Your task to perform on an android device: Add bose soundlink to the cart on ebay Image 0: 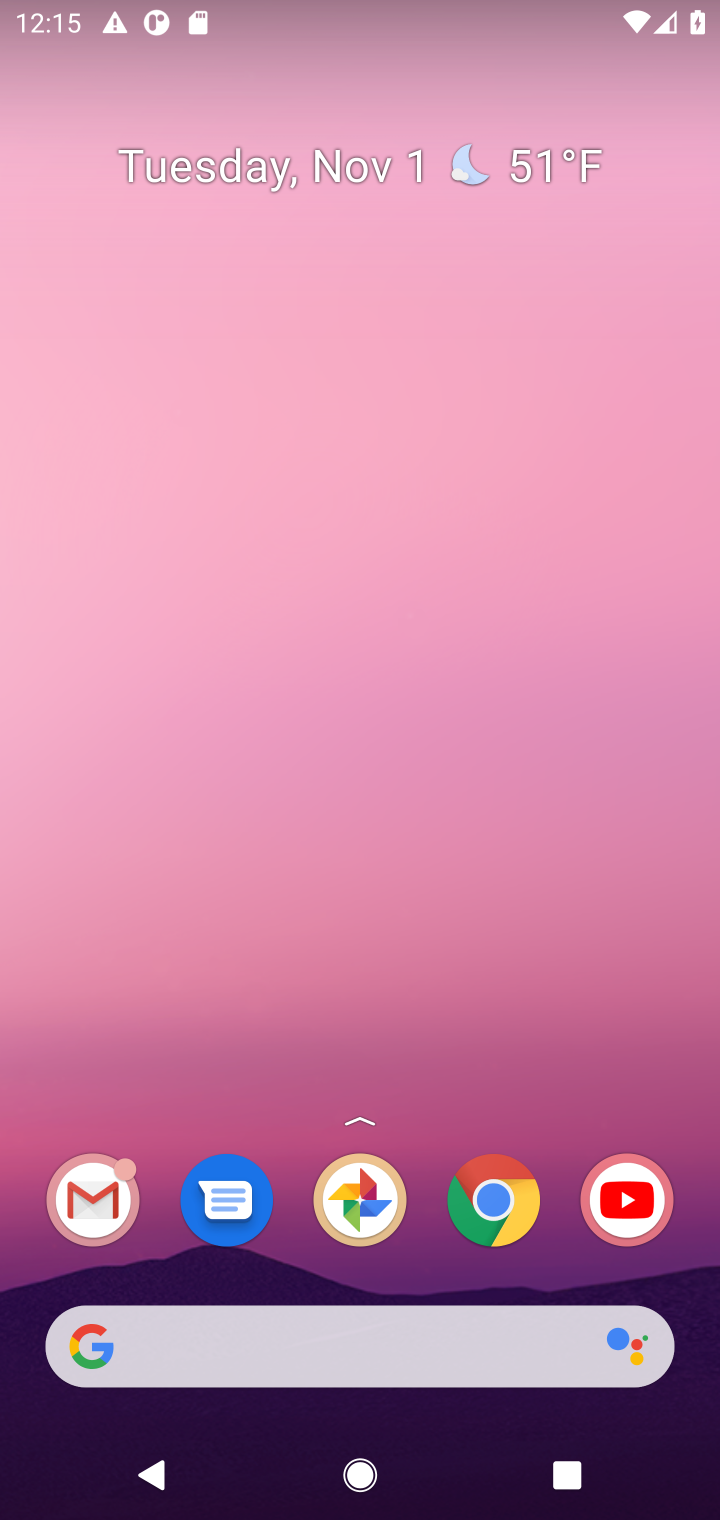
Step 0: click (492, 1203)
Your task to perform on an android device: Add bose soundlink to the cart on ebay Image 1: 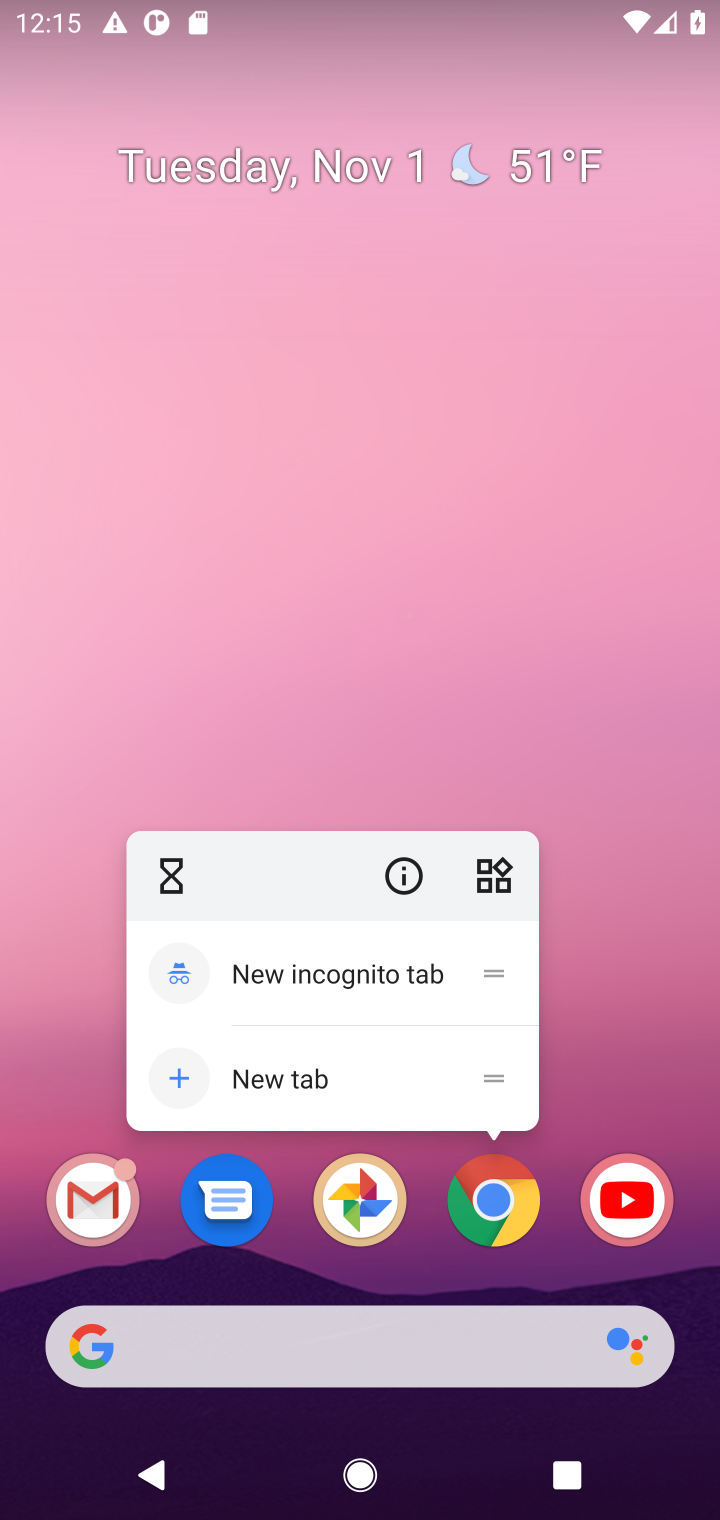
Step 1: click (492, 1203)
Your task to perform on an android device: Add bose soundlink to the cart on ebay Image 2: 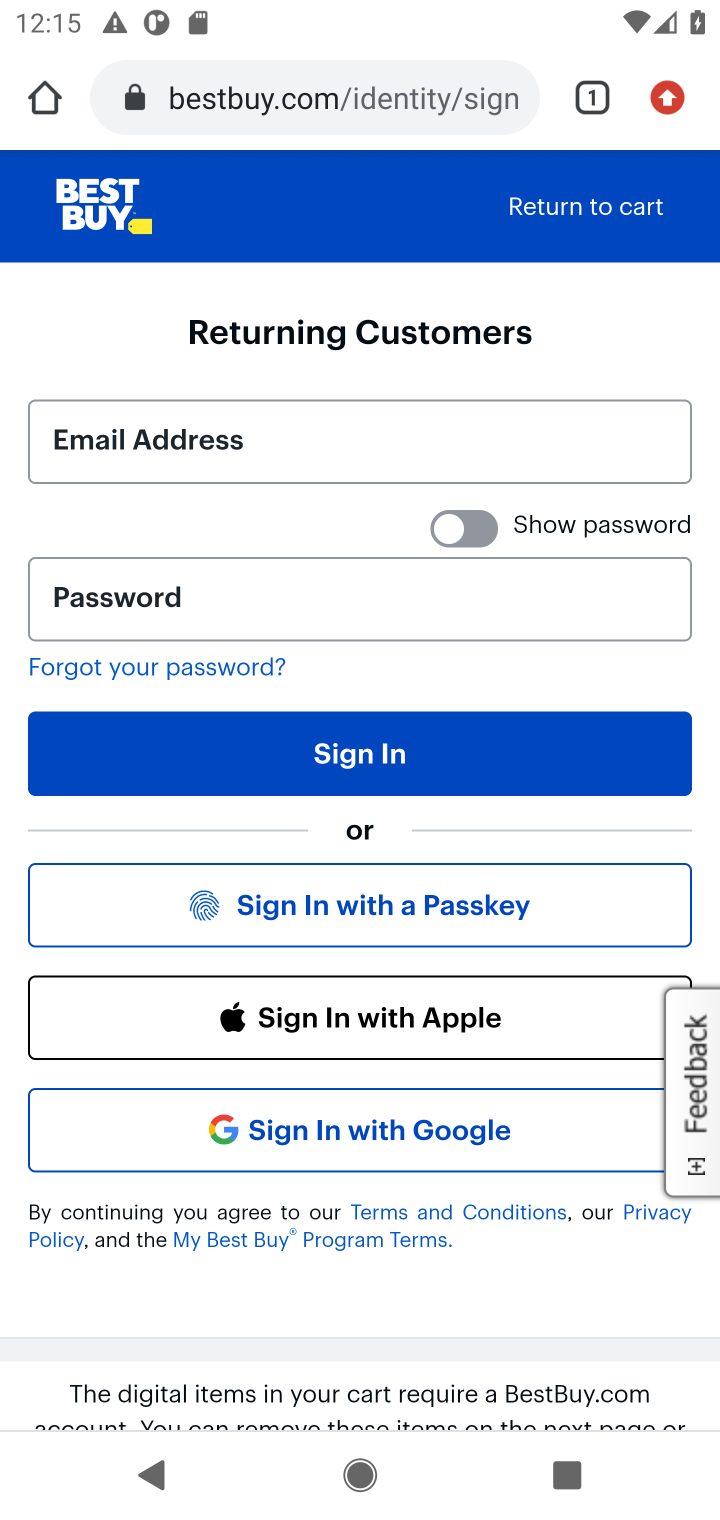
Step 2: click (332, 99)
Your task to perform on an android device: Add bose soundlink to the cart on ebay Image 3: 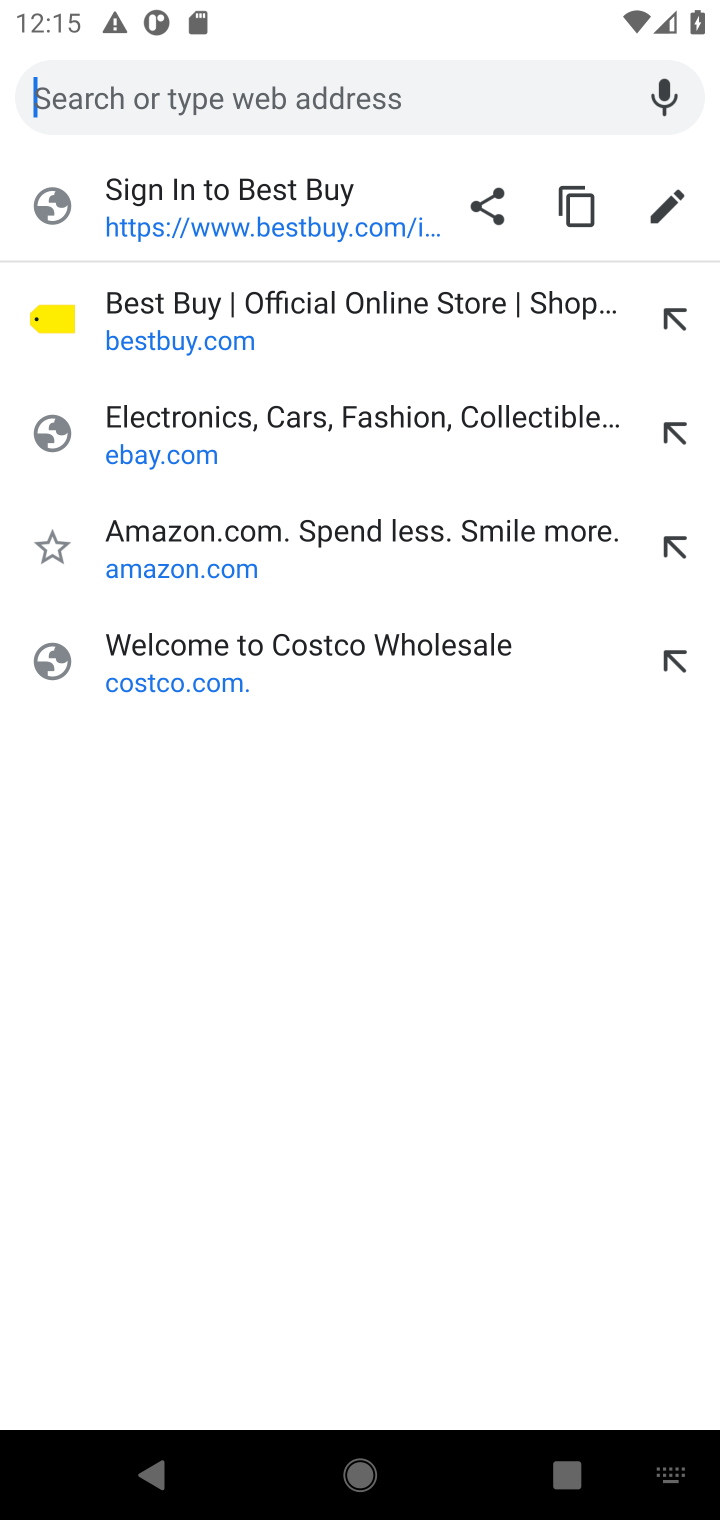
Step 3: click (155, 457)
Your task to perform on an android device: Add bose soundlink to the cart on ebay Image 4: 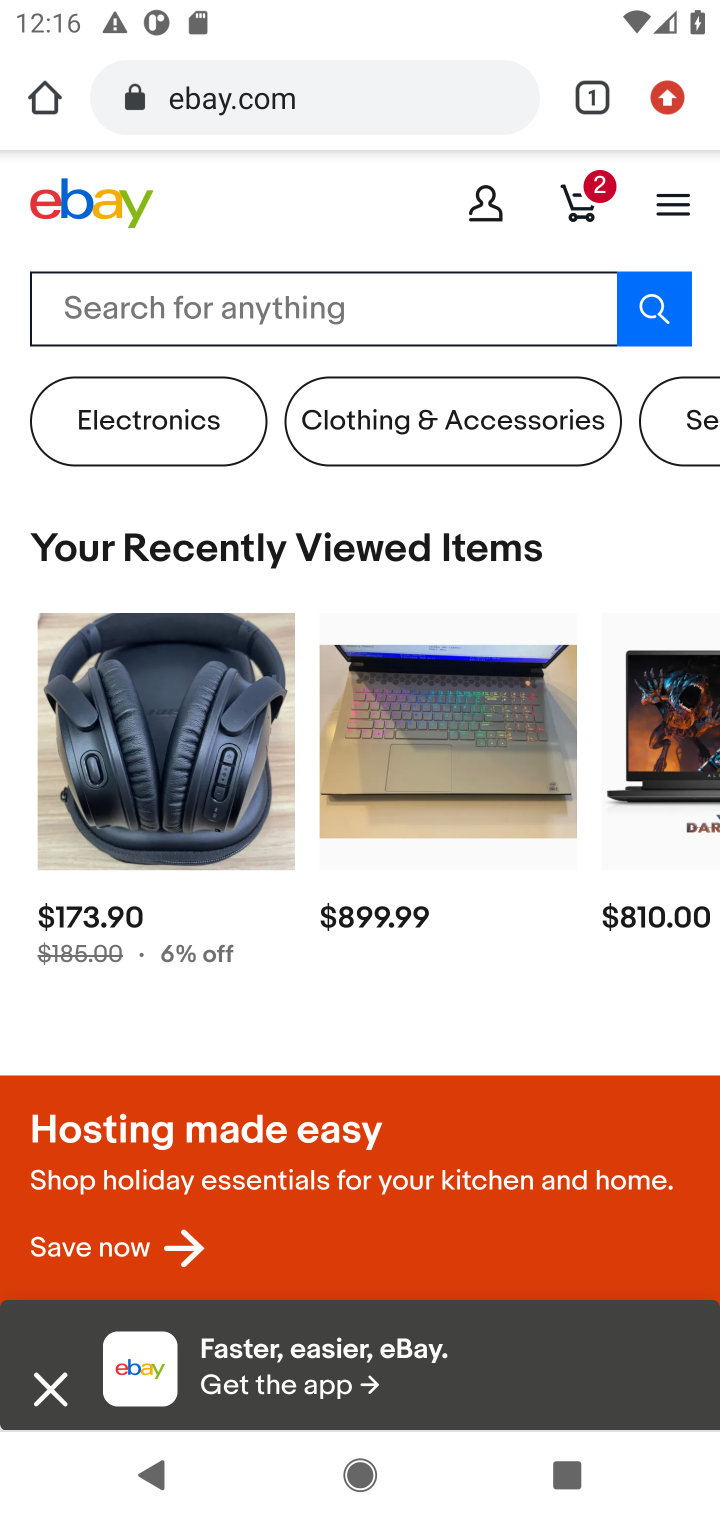
Step 4: click (249, 297)
Your task to perform on an android device: Add bose soundlink to the cart on ebay Image 5: 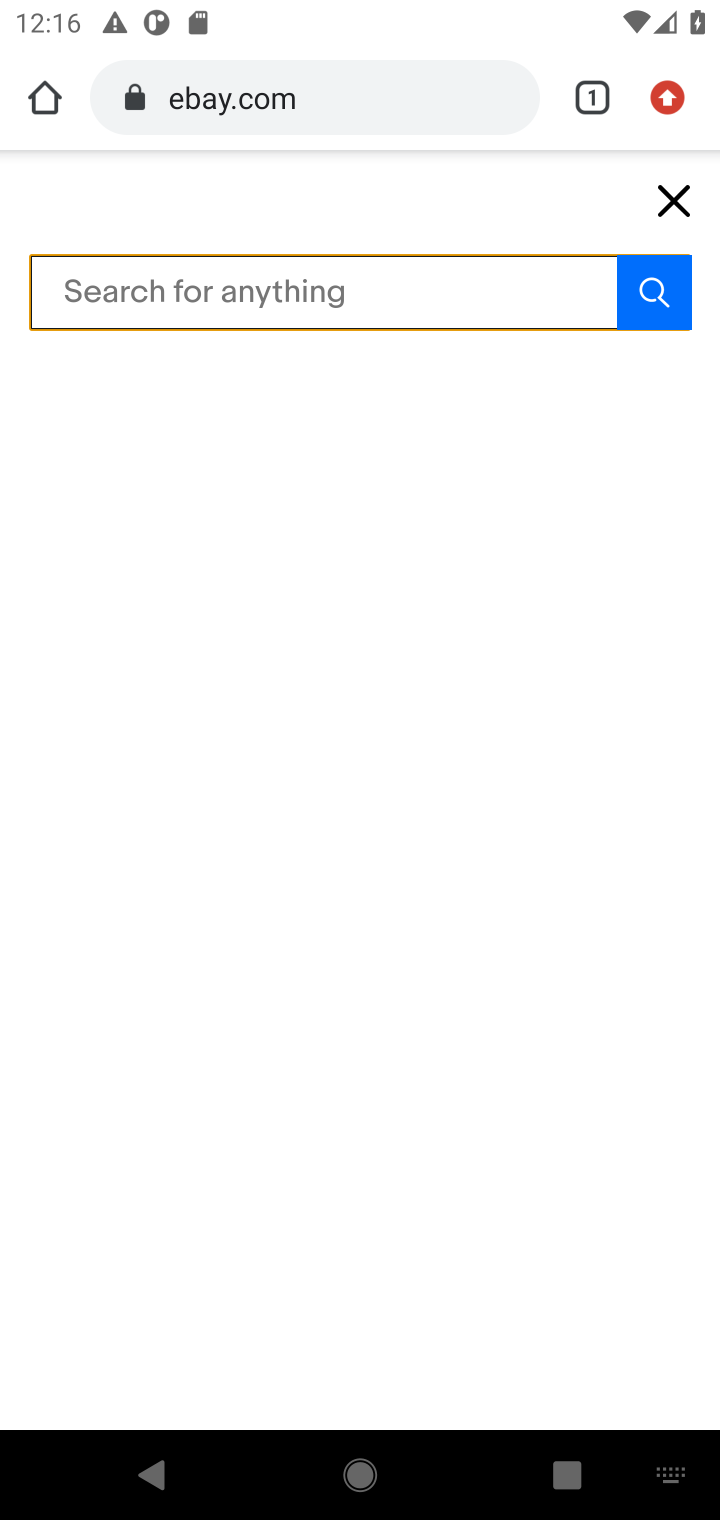
Step 5: type "bose soundlink "
Your task to perform on an android device: Add bose soundlink to the cart on ebay Image 6: 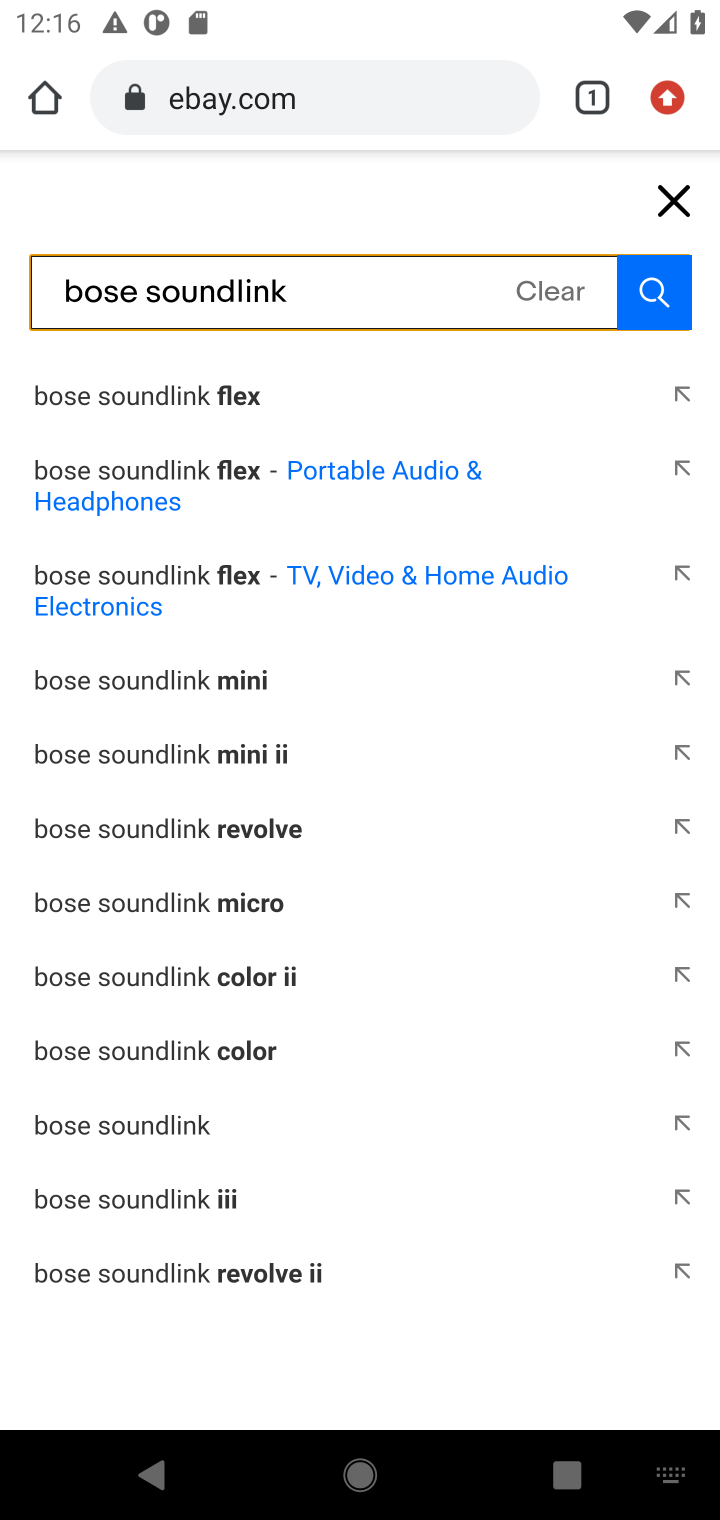
Step 6: click (120, 401)
Your task to perform on an android device: Add bose soundlink to the cart on ebay Image 7: 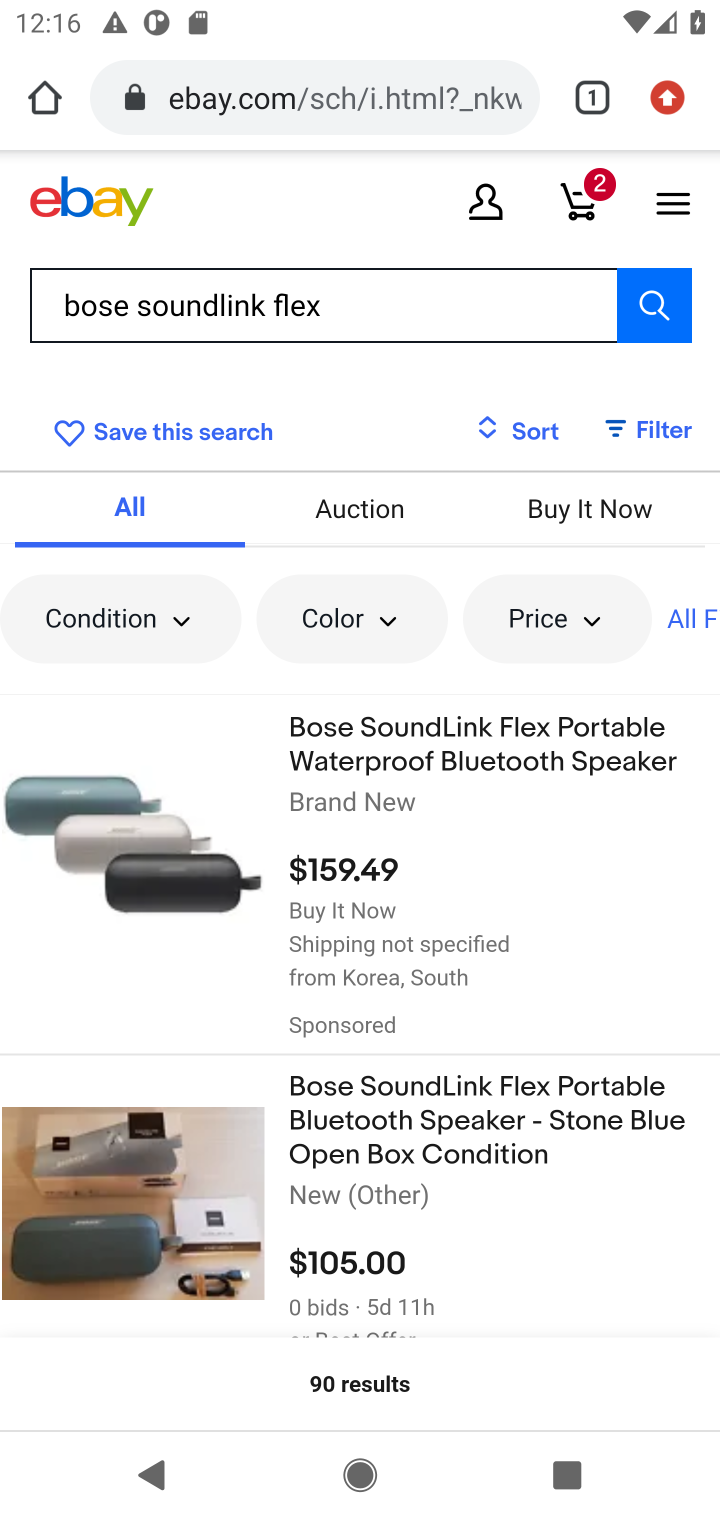
Step 7: click (223, 848)
Your task to perform on an android device: Add bose soundlink to the cart on ebay Image 8: 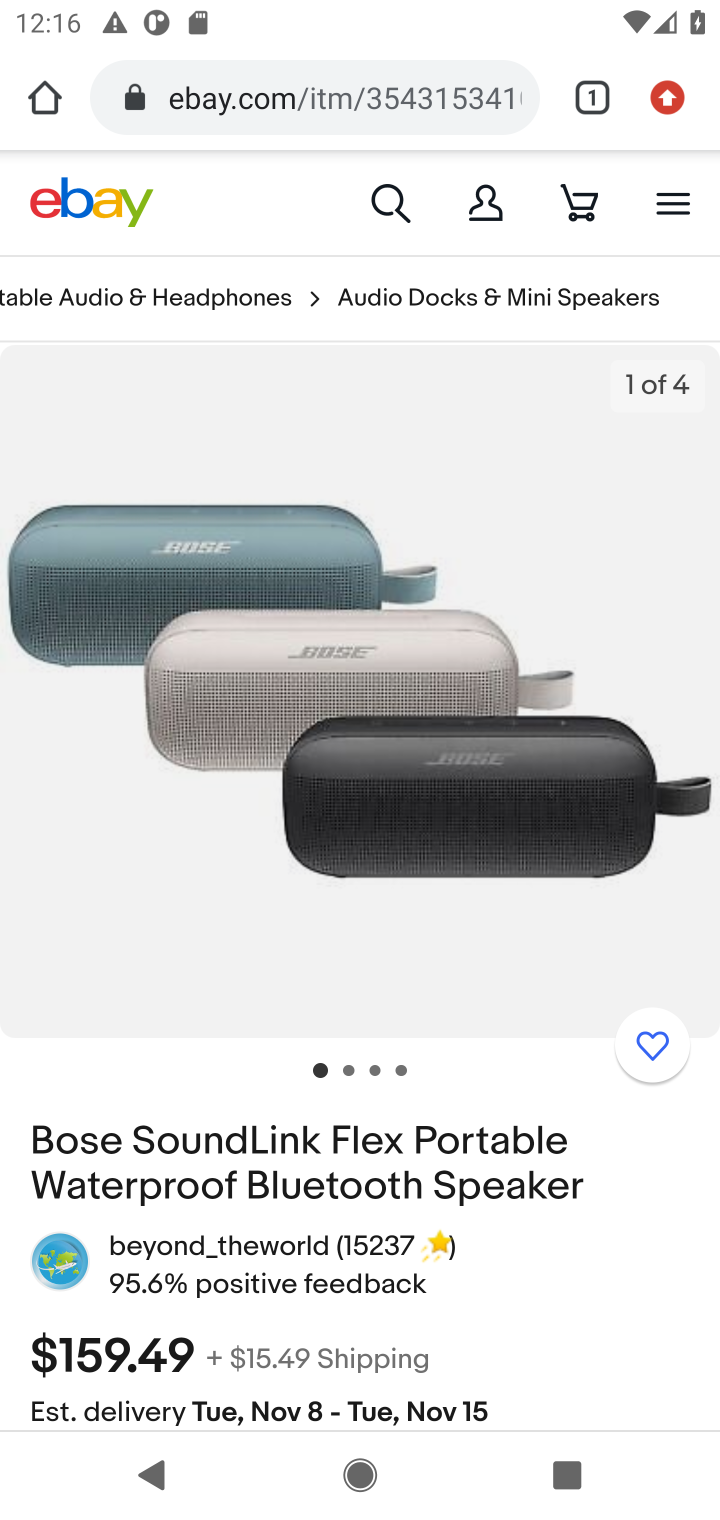
Step 8: drag from (300, 870) to (282, 403)
Your task to perform on an android device: Add bose soundlink to the cart on ebay Image 9: 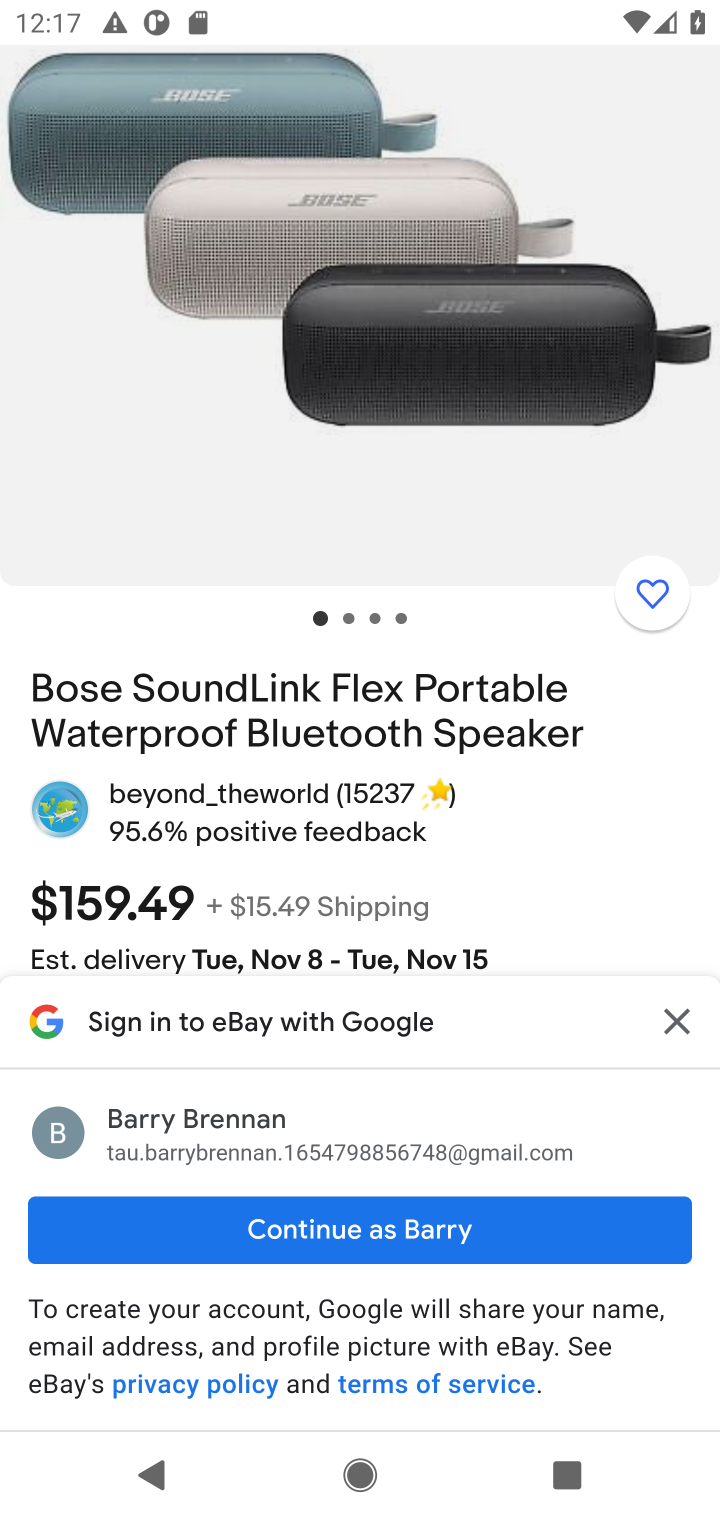
Step 9: click (674, 1014)
Your task to perform on an android device: Add bose soundlink to the cart on ebay Image 10: 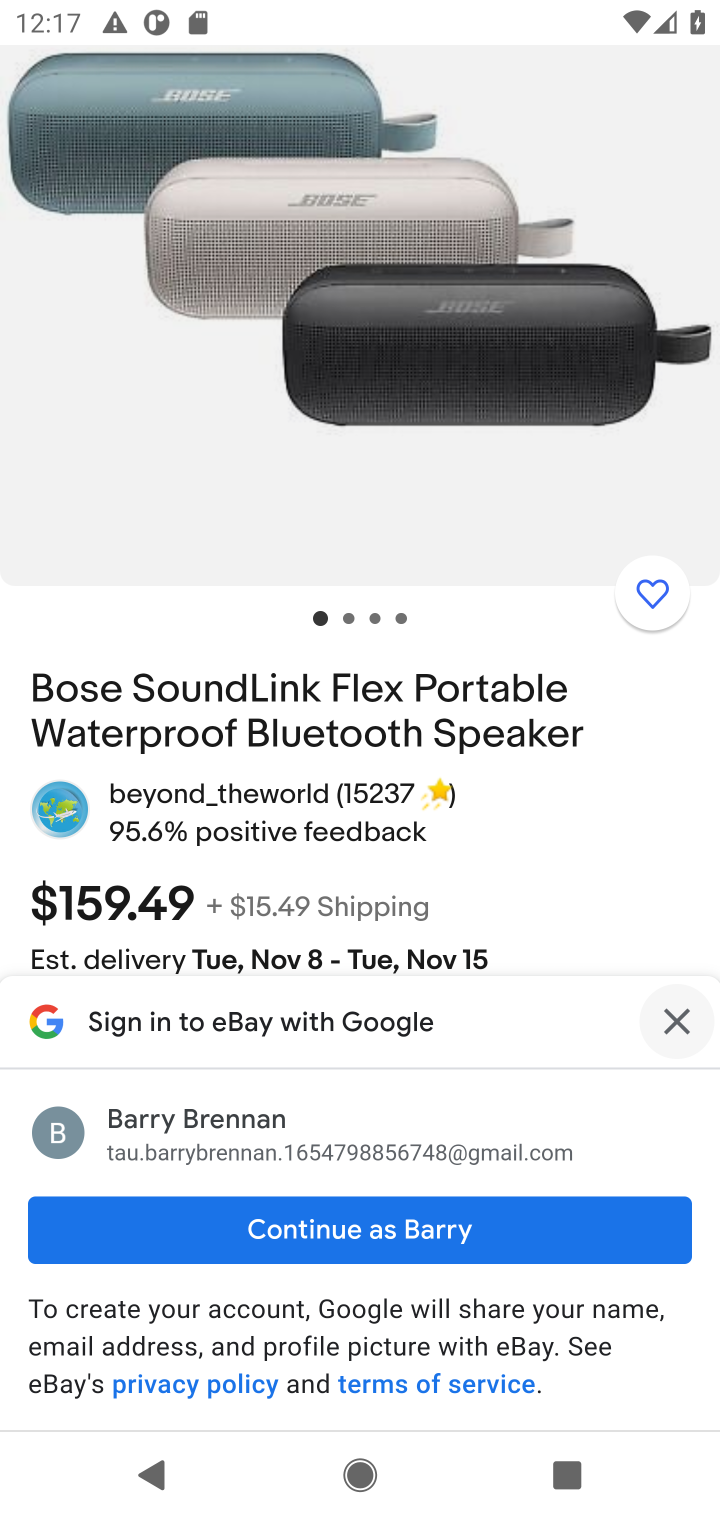
Step 10: click (688, 1021)
Your task to perform on an android device: Add bose soundlink to the cart on ebay Image 11: 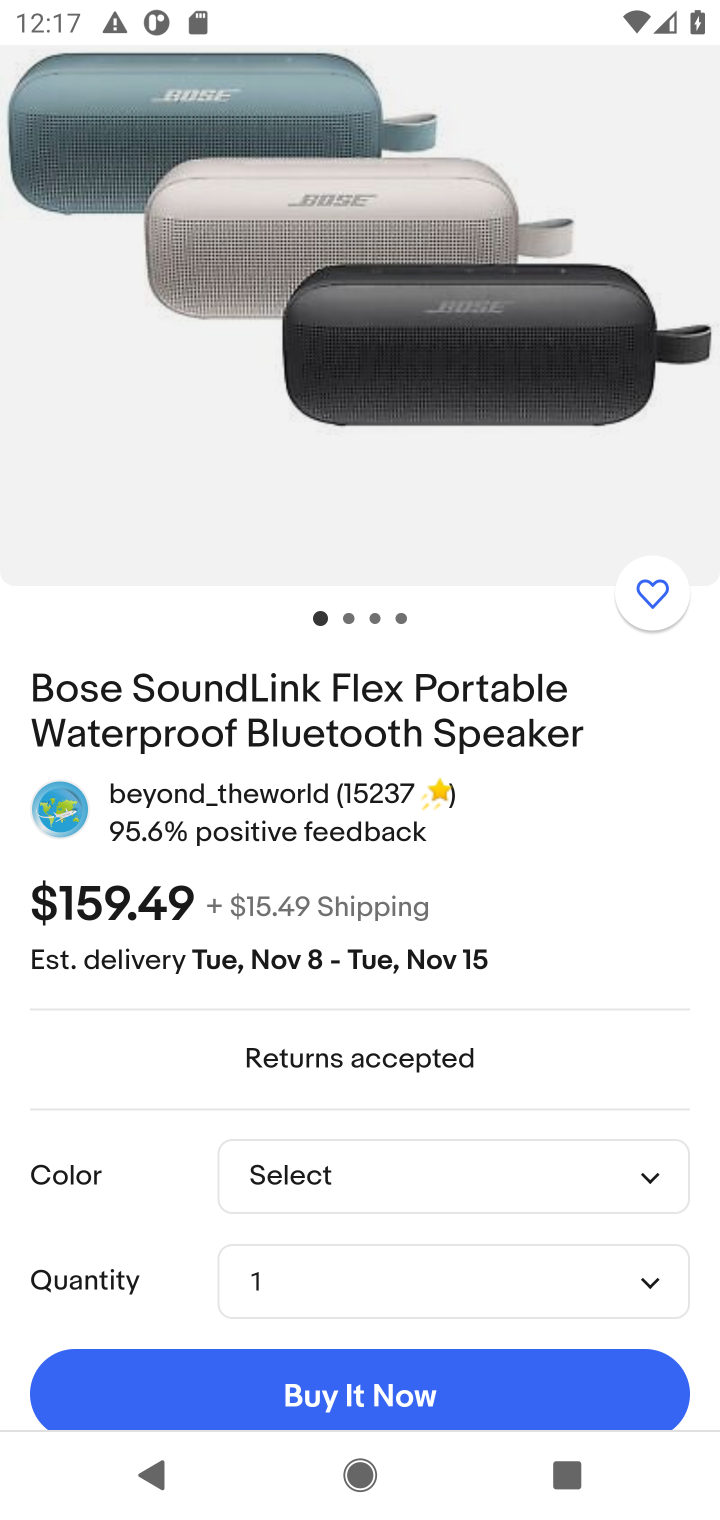
Step 11: drag from (376, 621) to (378, 486)
Your task to perform on an android device: Add bose soundlink to the cart on ebay Image 12: 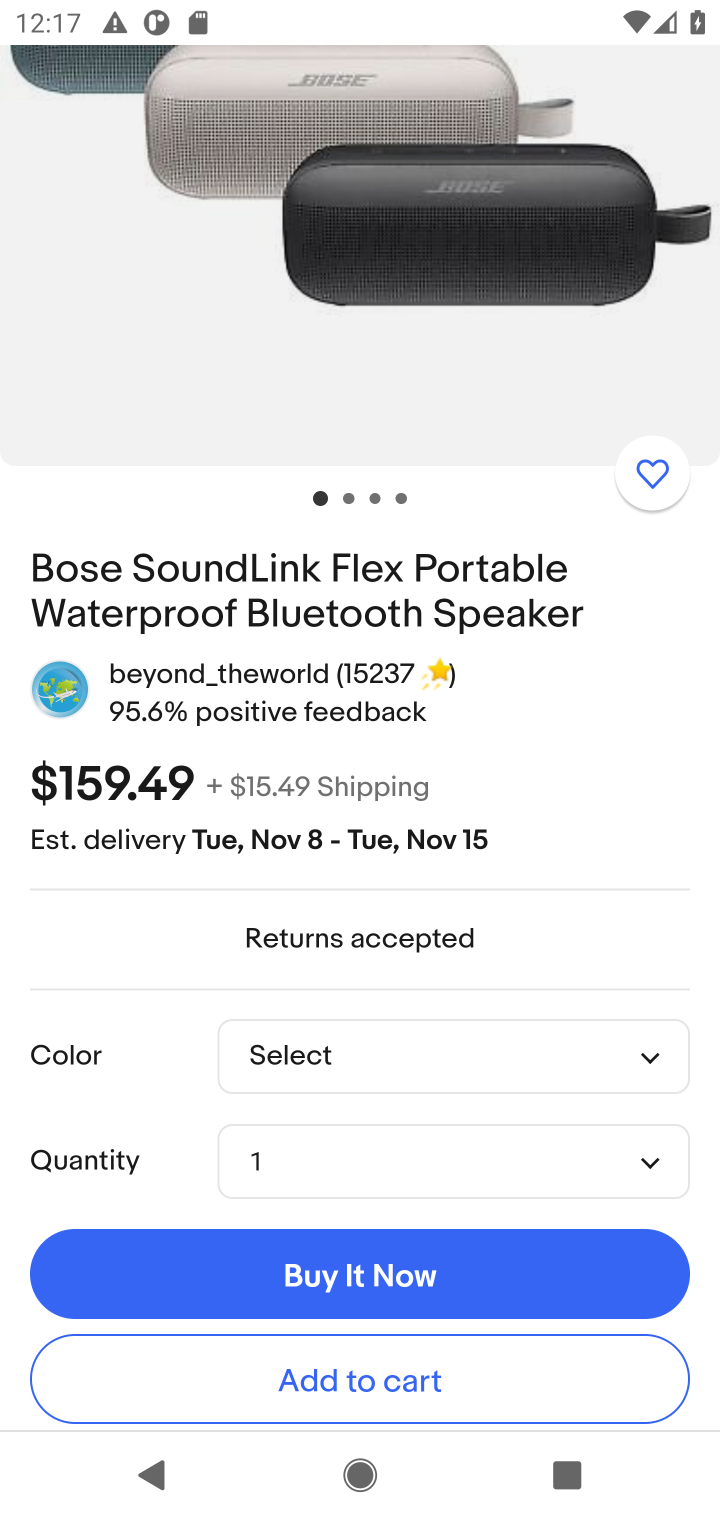
Step 12: click (334, 1378)
Your task to perform on an android device: Add bose soundlink to the cart on ebay Image 13: 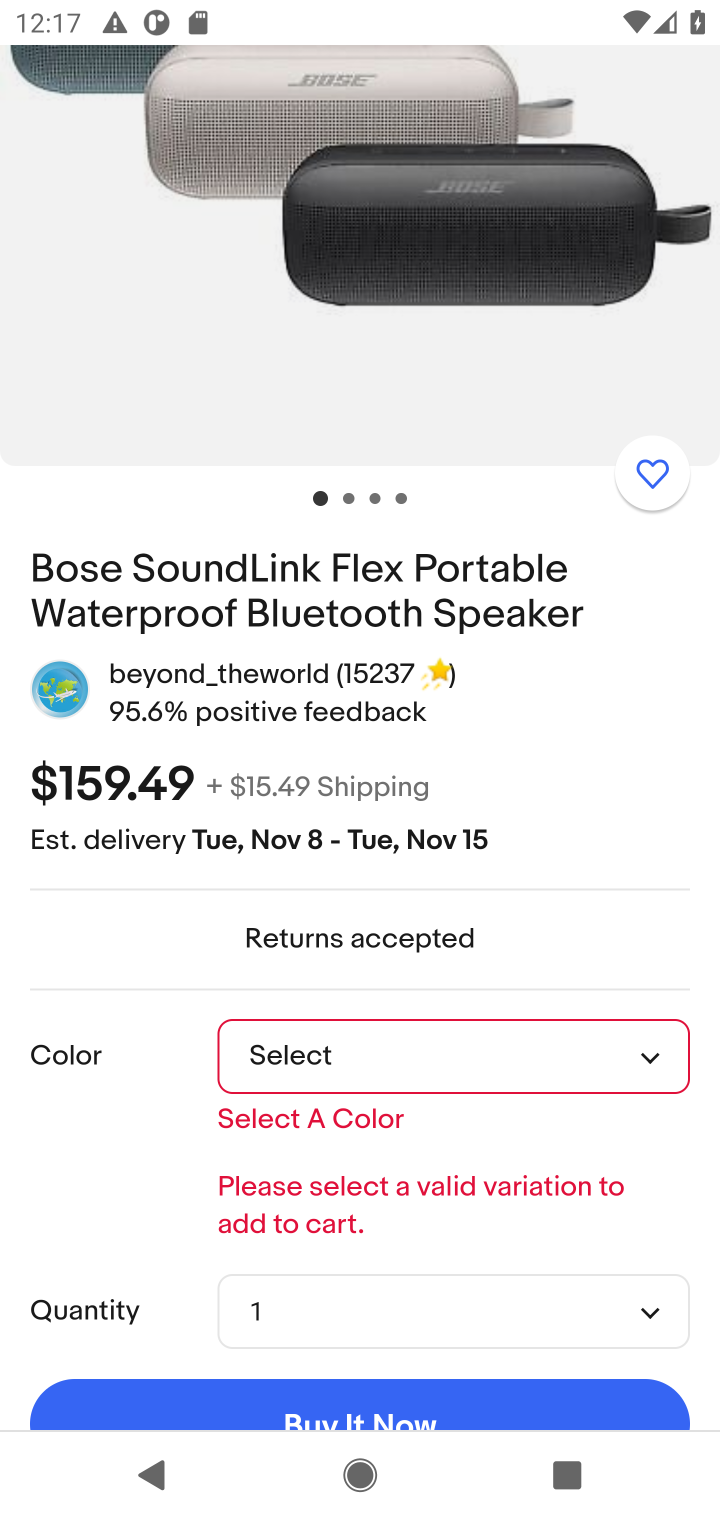
Step 13: click (644, 1058)
Your task to perform on an android device: Add bose soundlink to the cart on ebay Image 14: 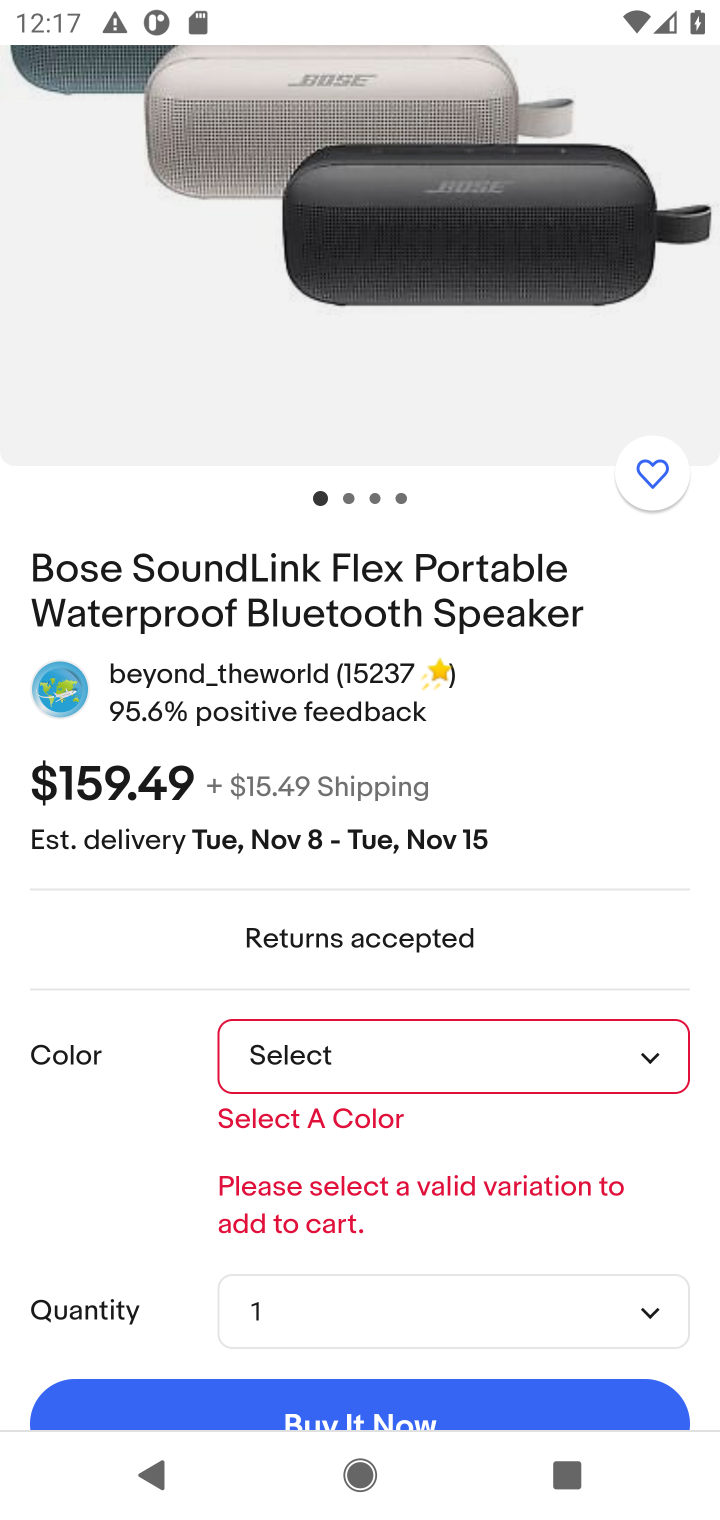
Step 14: click (653, 1064)
Your task to perform on an android device: Add bose soundlink to the cart on ebay Image 15: 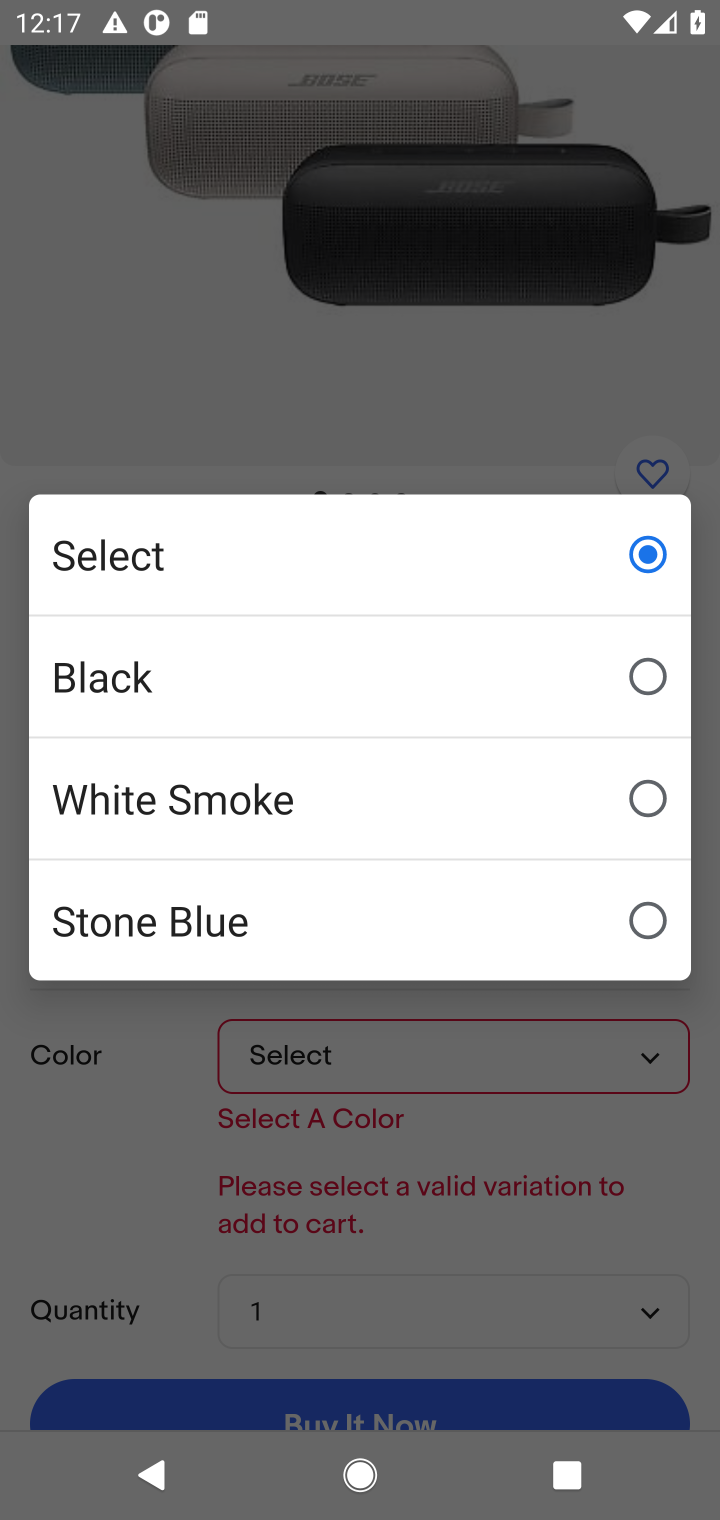
Step 15: click (145, 790)
Your task to perform on an android device: Add bose soundlink to the cart on ebay Image 16: 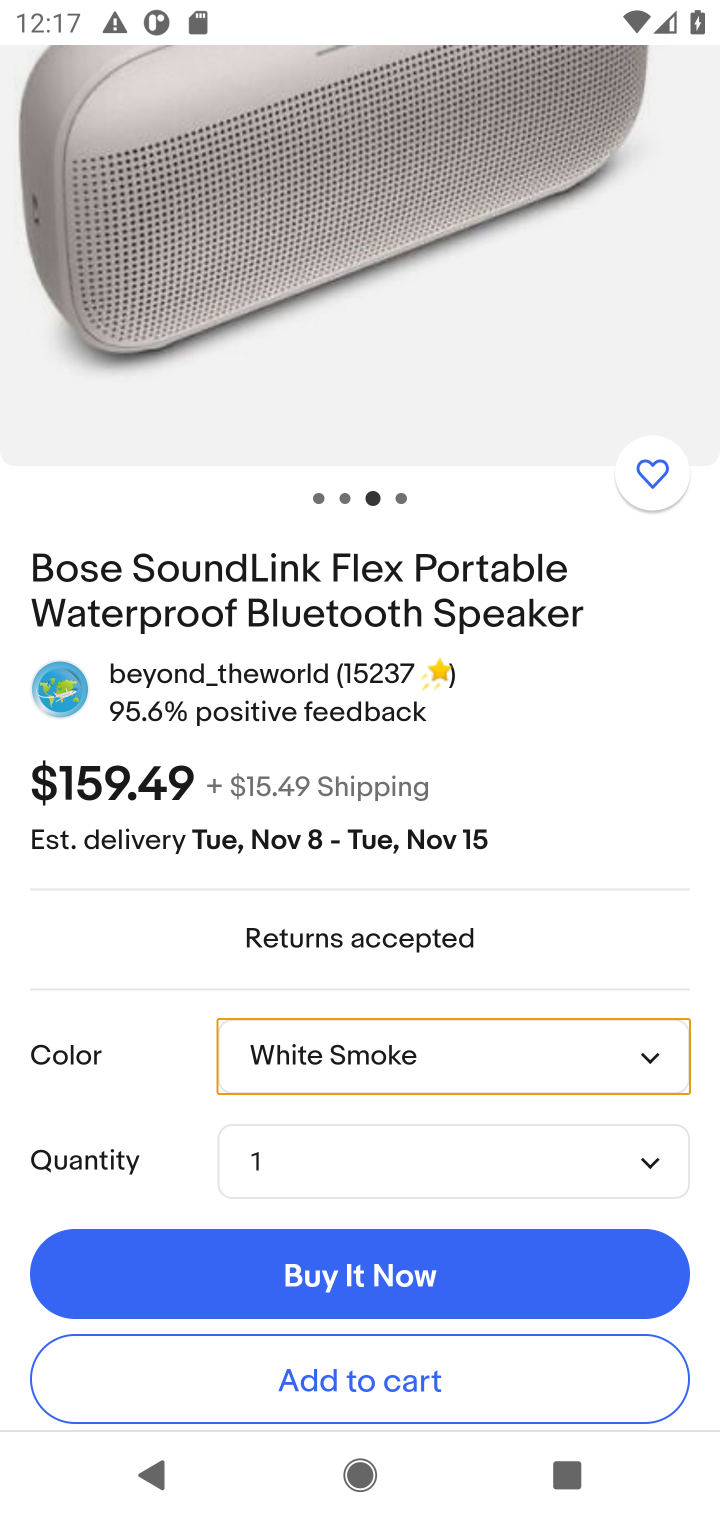
Step 16: click (356, 1385)
Your task to perform on an android device: Add bose soundlink to the cart on ebay Image 17: 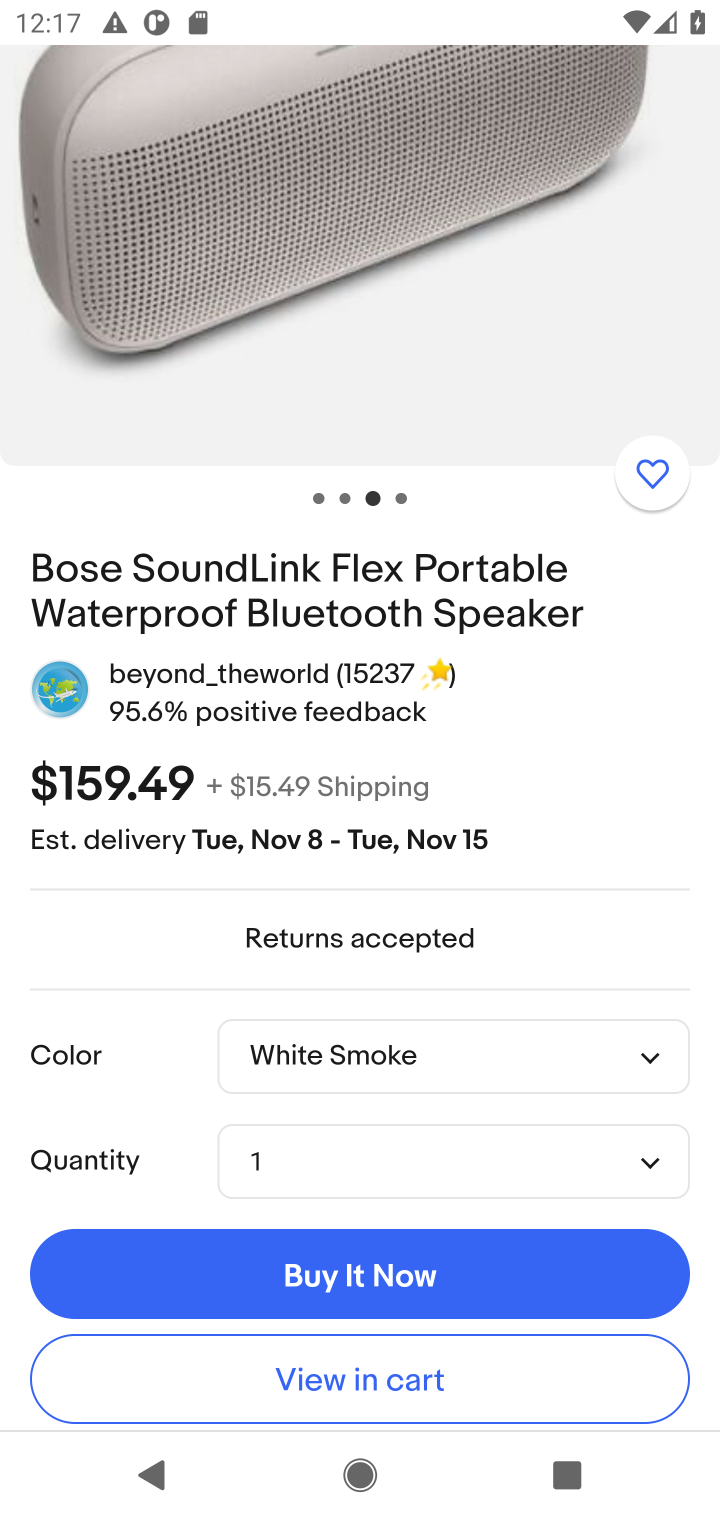
Step 17: task complete